Your task to perform on an android device: Open Google Chrome Image 0: 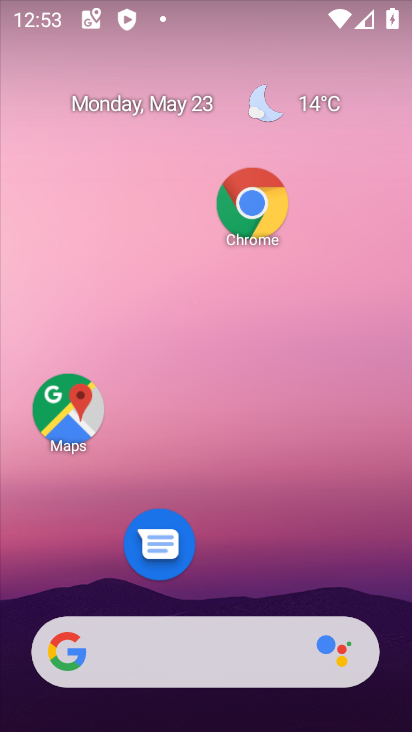
Step 0: click (246, 210)
Your task to perform on an android device: Open Google Chrome Image 1: 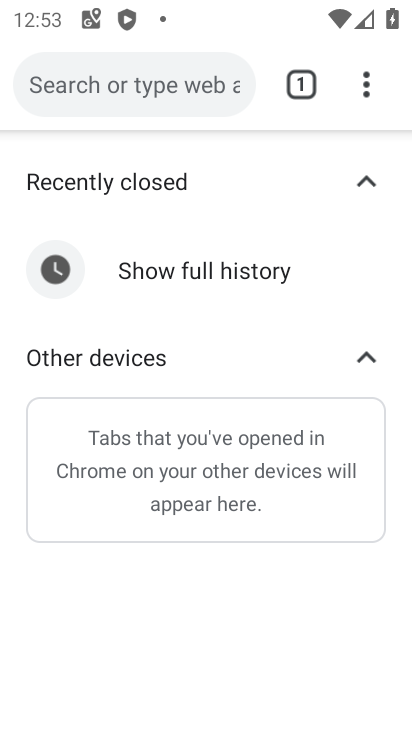
Step 1: task complete